Your task to perform on an android device: turn on wifi Image 0: 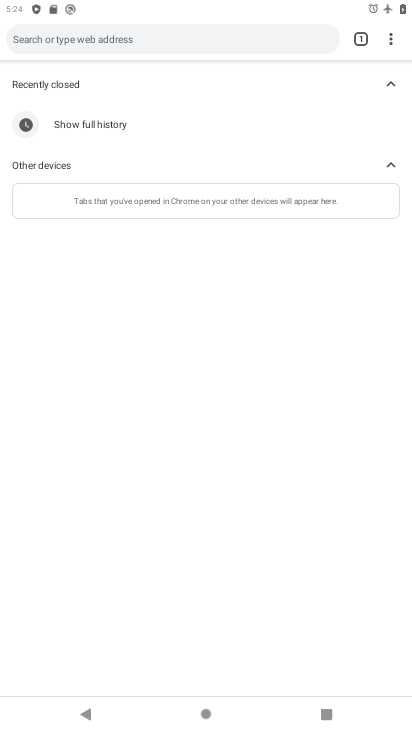
Step 0: press home button
Your task to perform on an android device: turn on wifi Image 1: 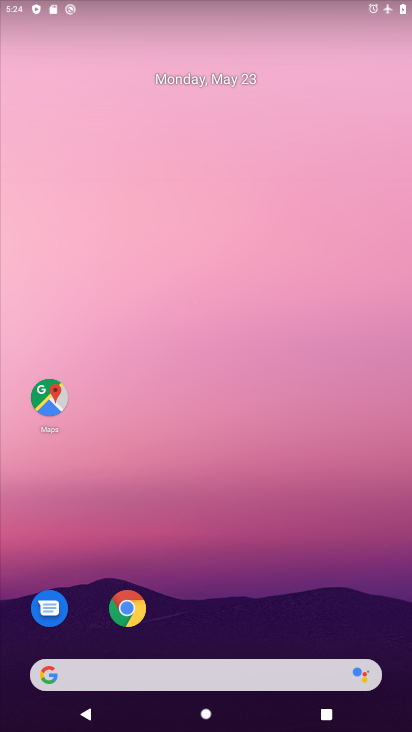
Step 1: drag from (238, 618) to (228, 165)
Your task to perform on an android device: turn on wifi Image 2: 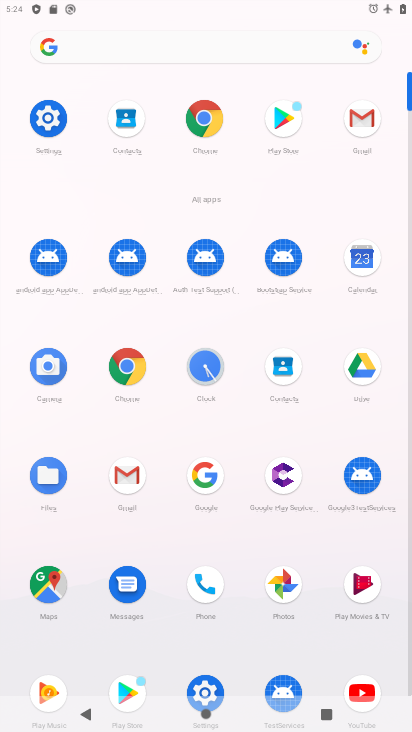
Step 2: click (45, 130)
Your task to perform on an android device: turn on wifi Image 3: 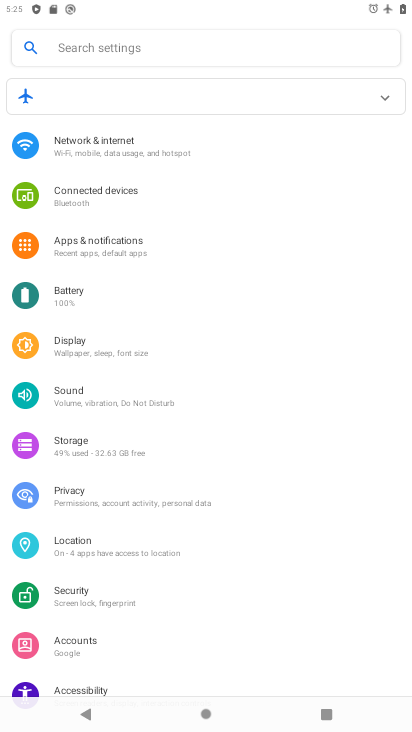
Step 3: click (148, 138)
Your task to perform on an android device: turn on wifi Image 4: 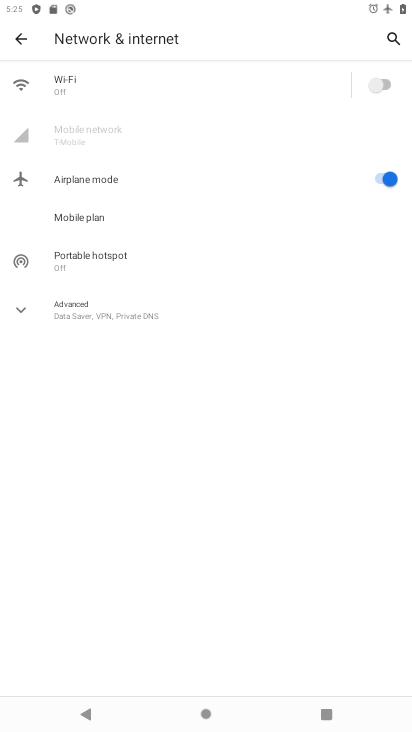
Step 4: click (377, 88)
Your task to perform on an android device: turn on wifi Image 5: 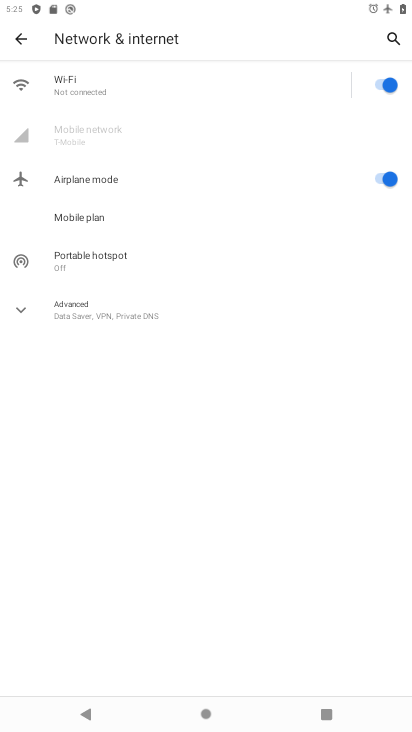
Step 5: task complete